Your task to perform on an android device: Go to Wikipedia Image 0: 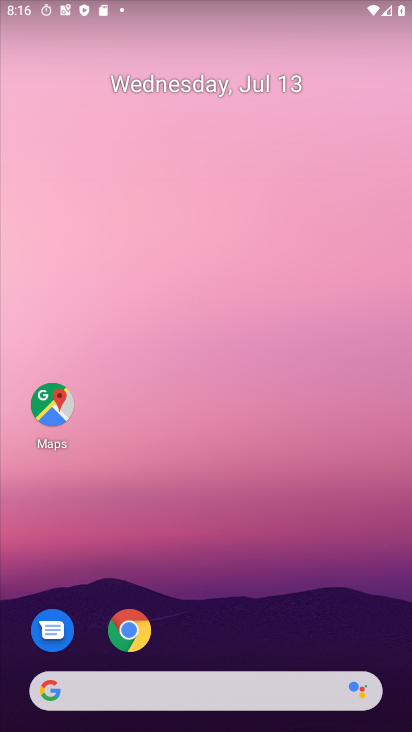
Step 0: drag from (328, 629) to (318, 139)
Your task to perform on an android device: Go to Wikipedia Image 1: 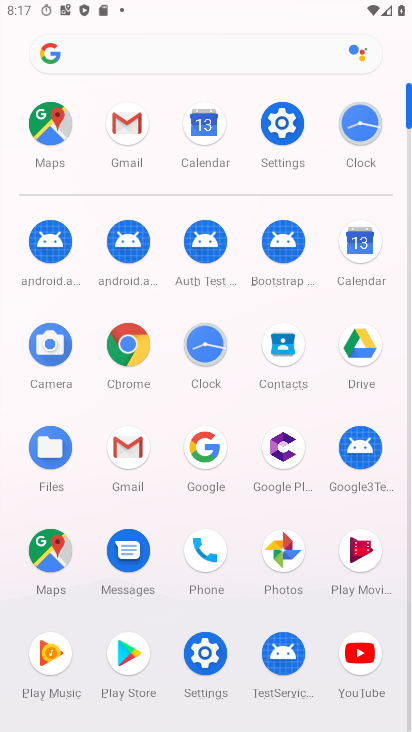
Step 1: click (128, 342)
Your task to perform on an android device: Go to Wikipedia Image 2: 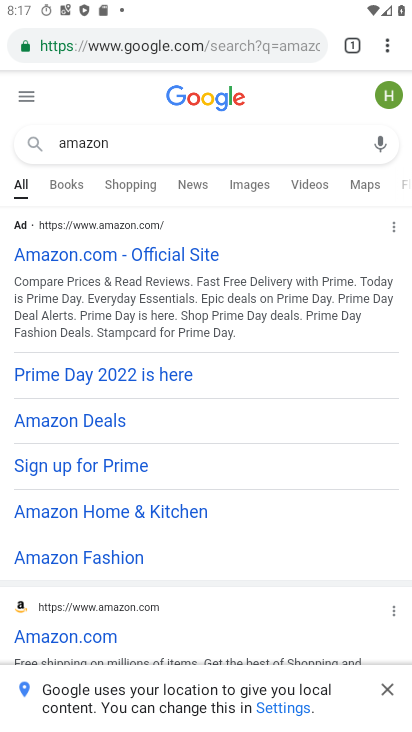
Step 2: click (249, 47)
Your task to perform on an android device: Go to Wikipedia Image 3: 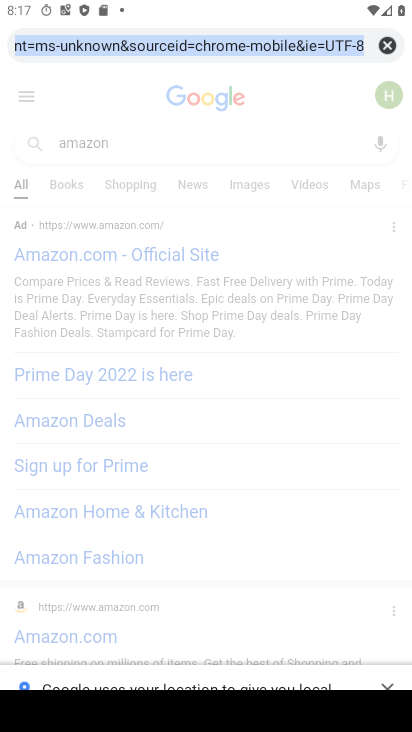
Step 3: type "wikipedia"
Your task to perform on an android device: Go to Wikipedia Image 4: 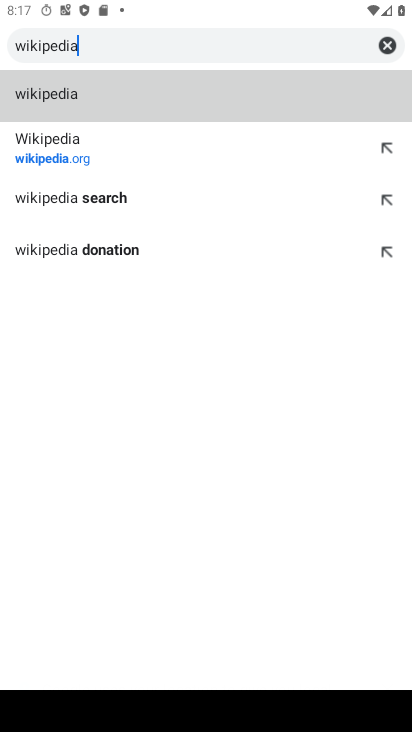
Step 4: click (99, 92)
Your task to perform on an android device: Go to Wikipedia Image 5: 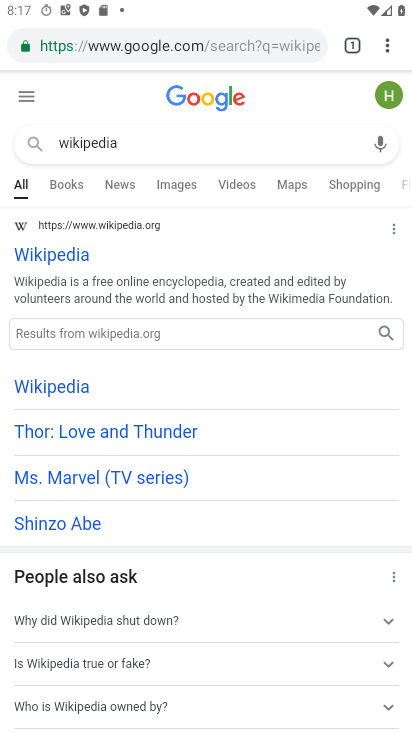
Step 5: task complete